Your task to perform on an android device: Go to Google Image 0: 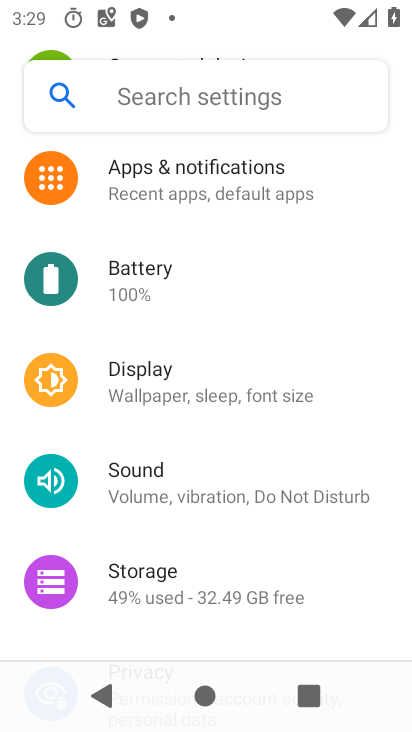
Step 0: press home button
Your task to perform on an android device: Go to Google Image 1: 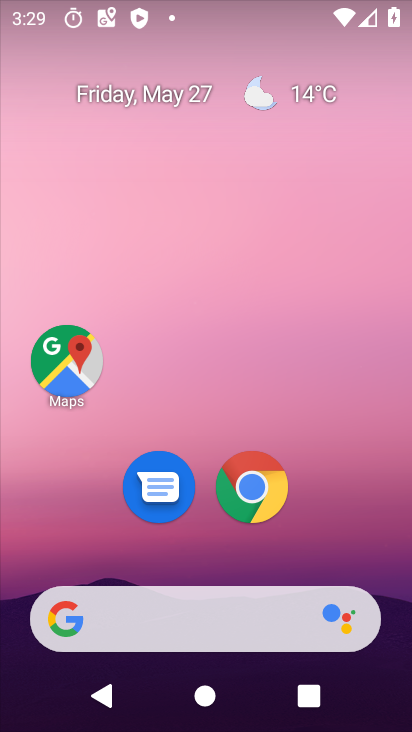
Step 1: drag from (321, 480) to (264, 48)
Your task to perform on an android device: Go to Google Image 2: 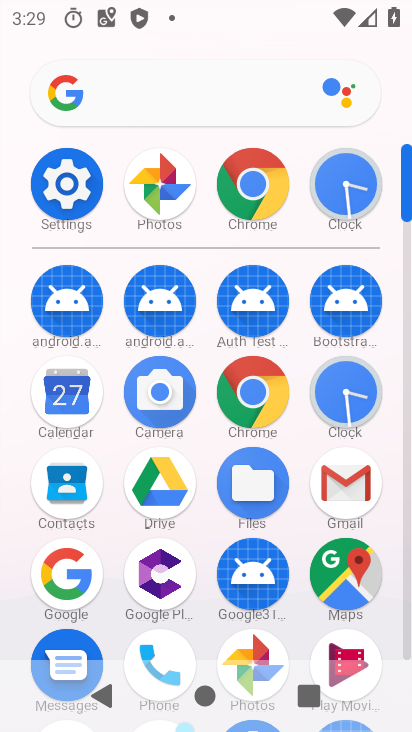
Step 2: click (53, 589)
Your task to perform on an android device: Go to Google Image 3: 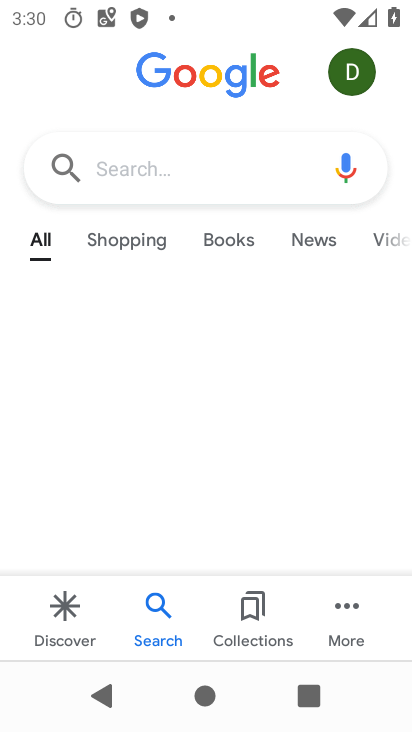
Step 3: task complete